Your task to perform on an android device: Search for sushi restaurants on Maps Image 0: 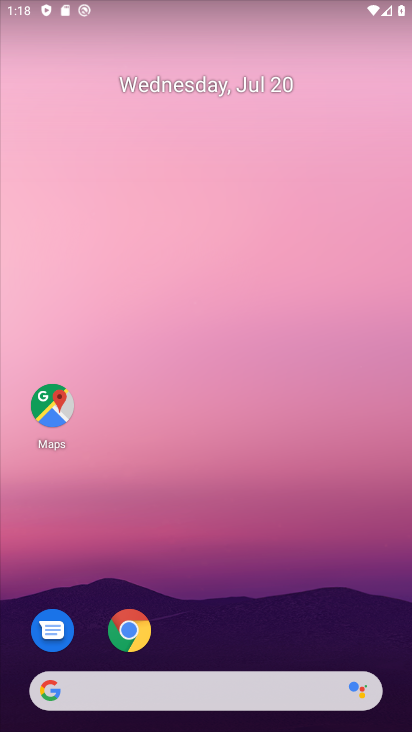
Step 0: drag from (201, 565) to (261, 97)
Your task to perform on an android device: Search for sushi restaurants on Maps Image 1: 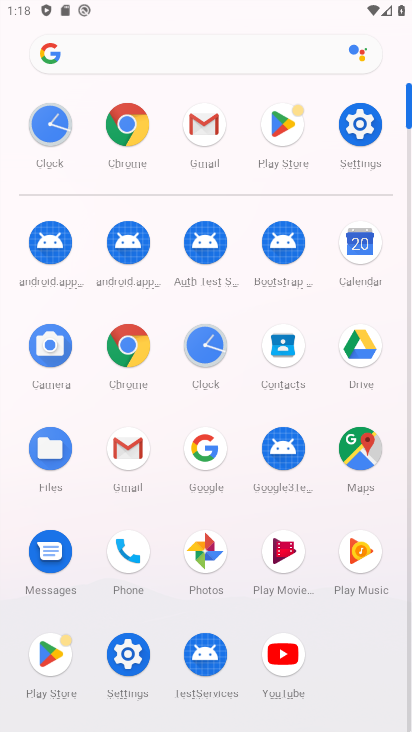
Step 1: click (344, 440)
Your task to perform on an android device: Search for sushi restaurants on Maps Image 2: 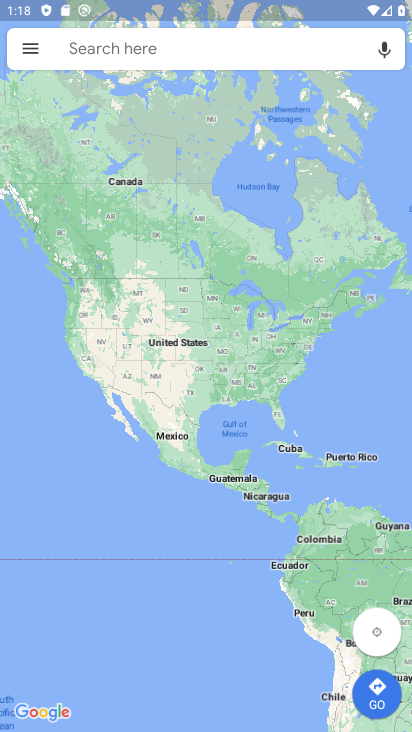
Step 2: click (220, 42)
Your task to perform on an android device: Search for sushi restaurants on Maps Image 3: 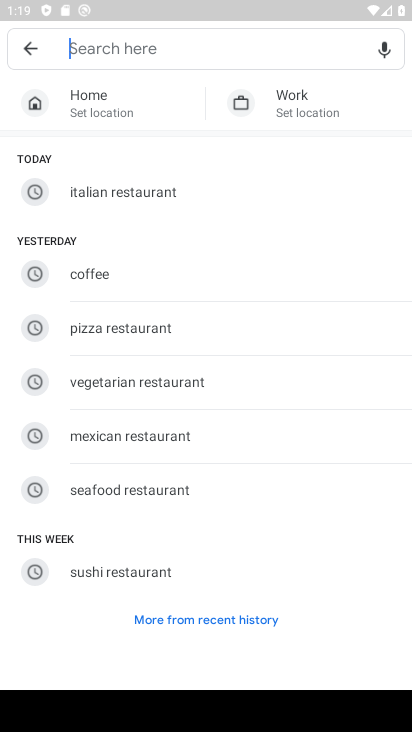
Step 3: type "sushi restaurants"
Your task to perform on an android device: Search for sushi restaurants on Maps Image 4: 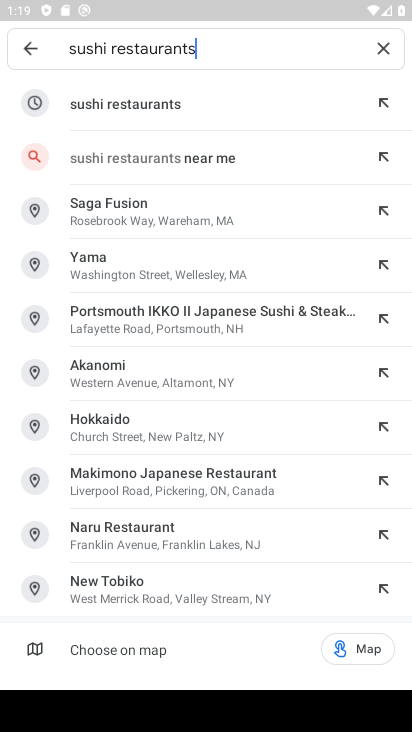
Step 4: click (149, 115)
Your task to perform on an android device: Search for sushi restaurants on Maps Image 5: 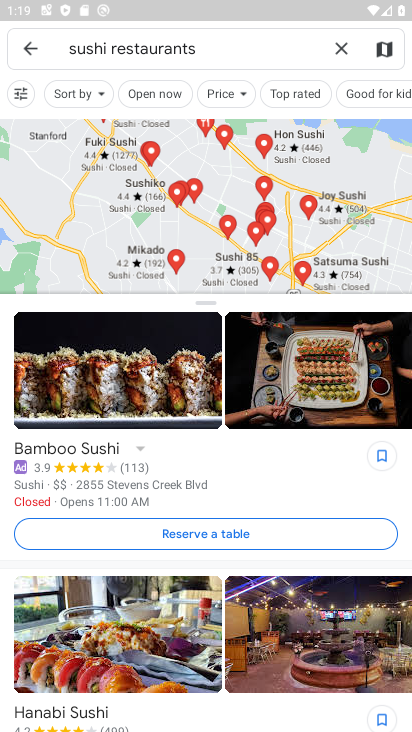
Step 5: task complete